Your task to perform on an android device: Go to Amazon Image 0: 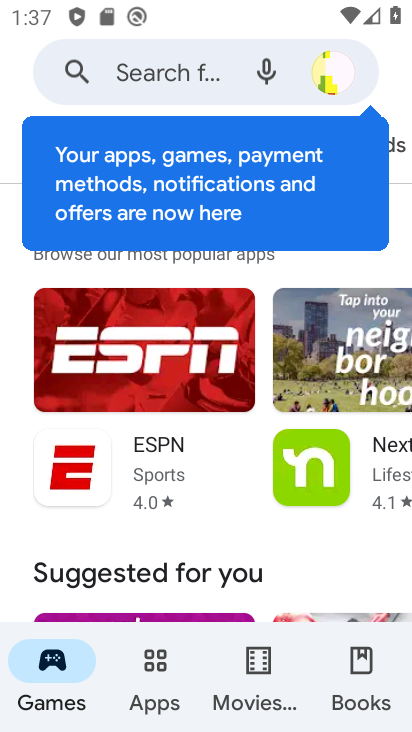
Step 0: drag from (248, 575) to (160, 56)
Your task to perform on an android device: Go to Amazon Image 1: 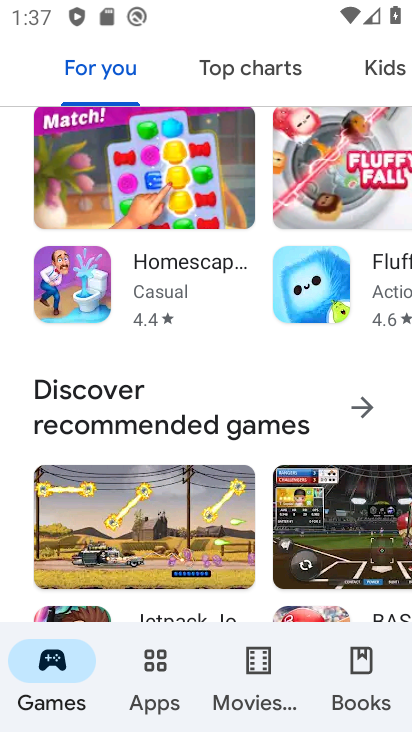
Step 1: drag from (269, 567) to (246, 233)
Your task to perform on an android device: Go to Amazon Image 2: 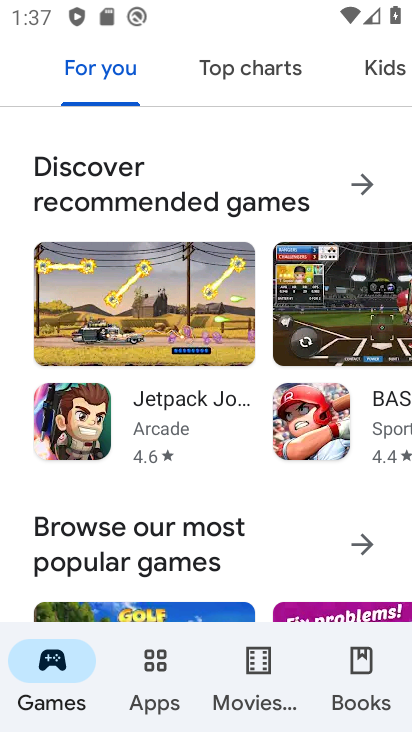
Step 2: press home button
Your task to perform on an android device: Go to Amazon Image 3: 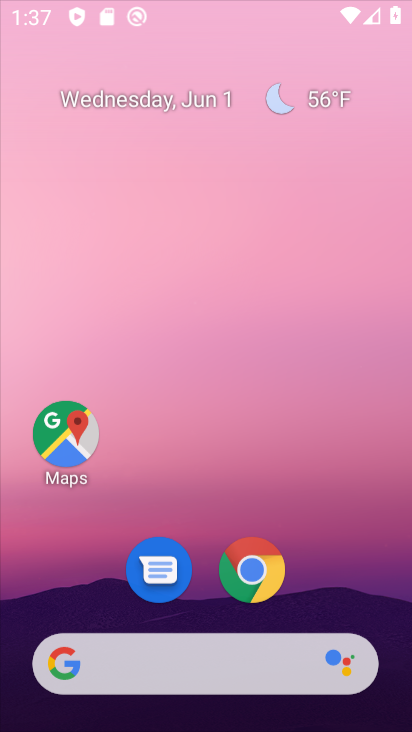
Step 3: drag from (273, 603) to (211, 31)
Your task to perform on an android device: Go to Amazon Image 4: 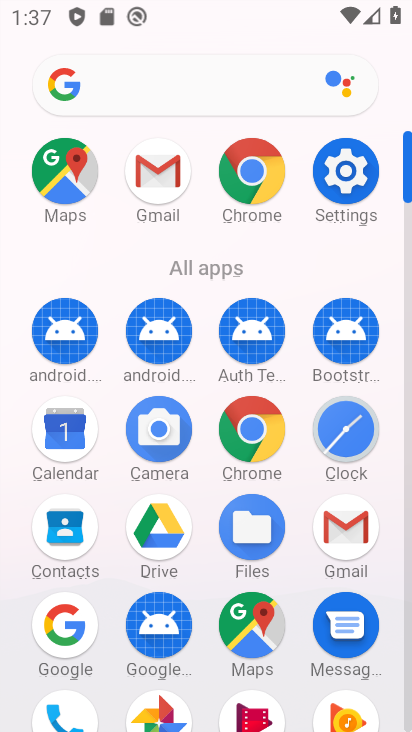
Step 4: click (144, 80)
Your task to perform on an android device: Go to Amazon Image 5: 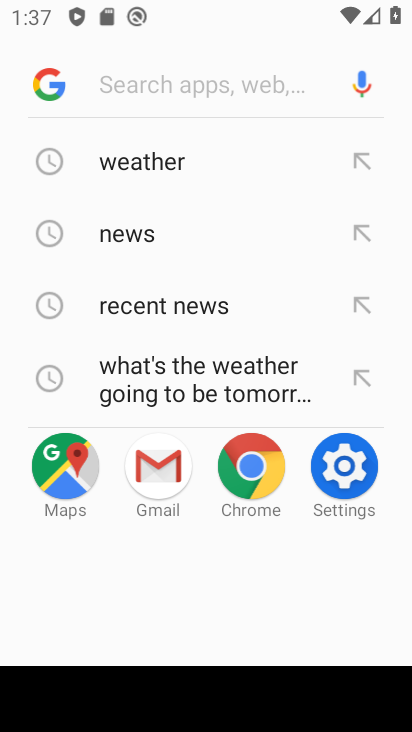
Step 5: click (111, 77)
Your task to perform on an android device: Go to Amazon Image 6: 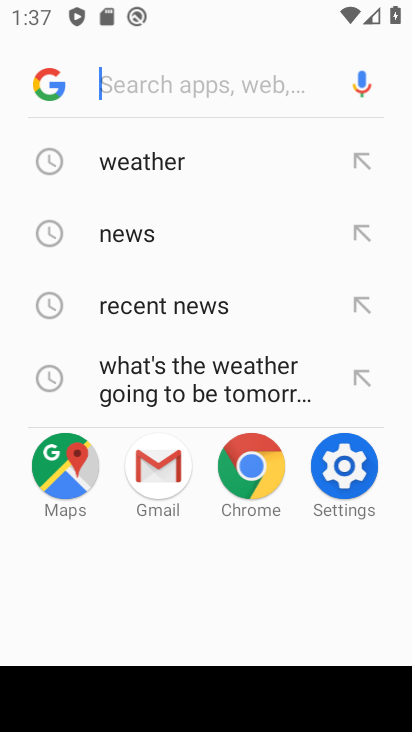
Step 6: type "Amazon"
Your task to perform on an android device: Go to Amazon Image 7: 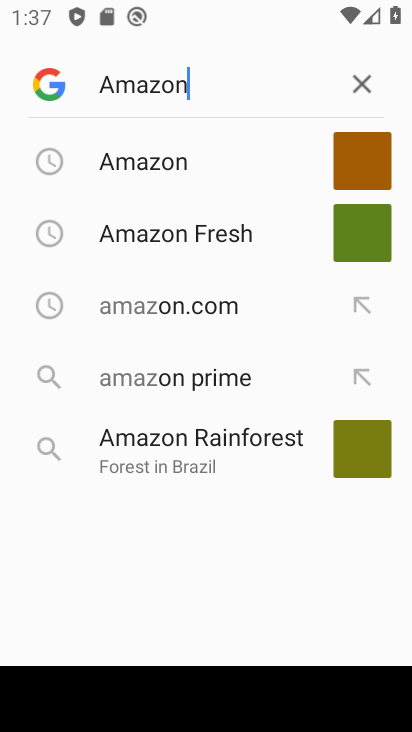
Step 7: type ""
Your task to perform on an android device: Go to Amazon Image 8: 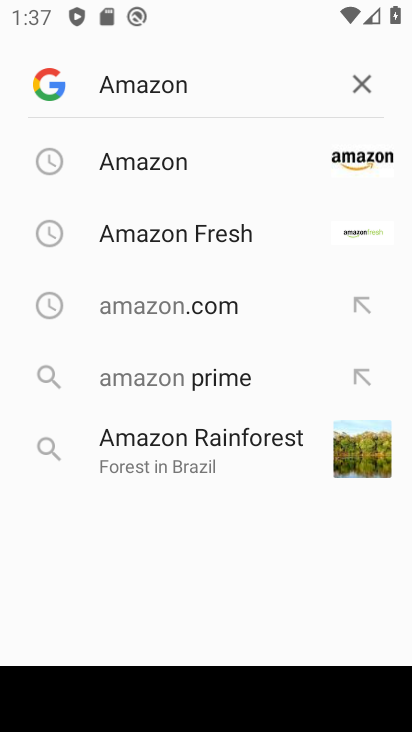
Step 8: click (182, 173)
Your task to perform on an android device: Go to Amazon Image 9: 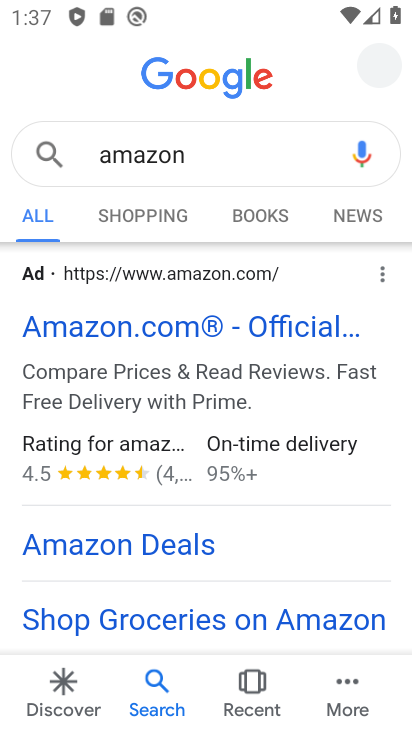
Step 9: drag from (214, 582) to (287, 302)
Your task to perform on an android device: Go to Amazon Image 10: 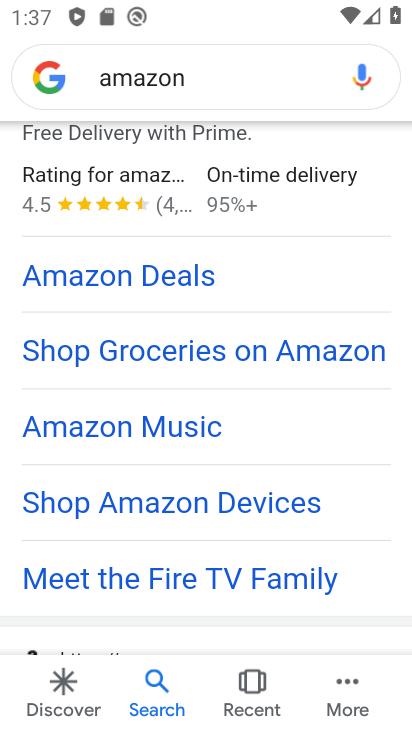
Step 10: drag from (168, 210) to (230, 621)
Your task to perform on an android device: Go to Amazon Image 11: 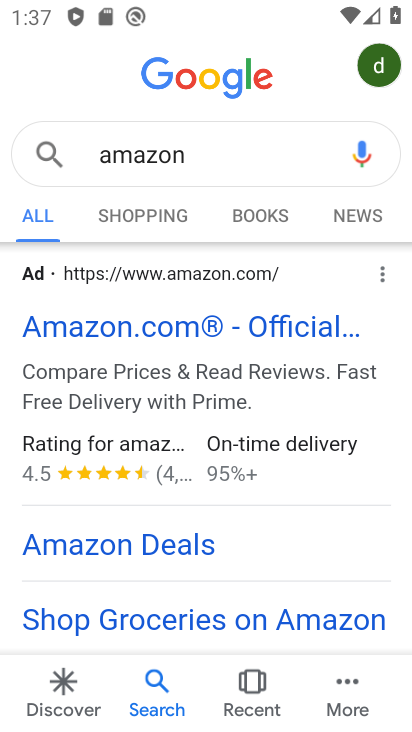
Step 11: click (85, 324)
Your task to perform on an android device: Go to Amazon Image 12: 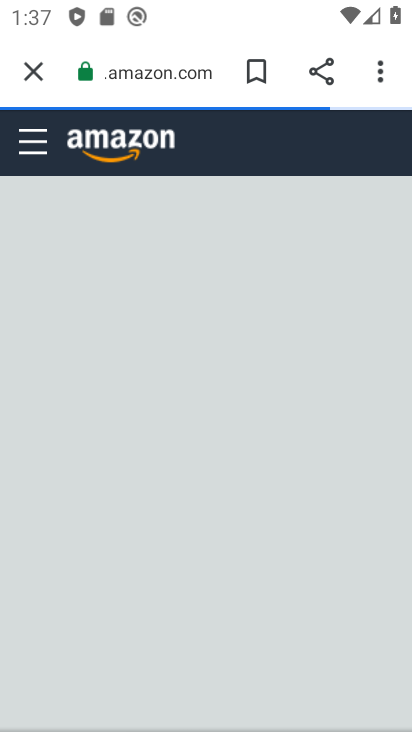
Step 12: task complete